Your task to perform on an android device: turn off priority inbox in the gmail app Image 0: 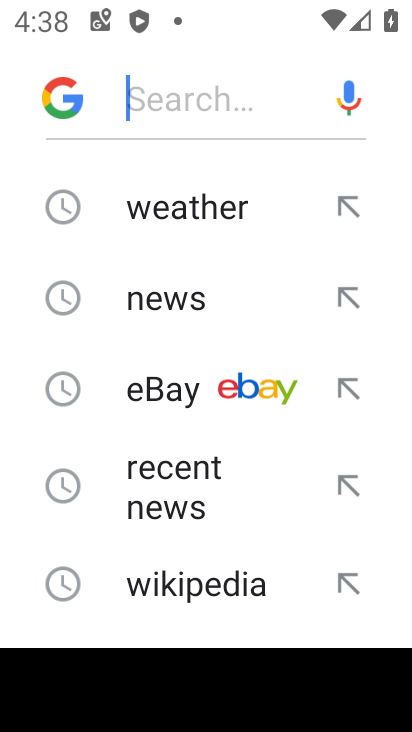
Step 0: press back button
Your task to perform on an android device: turn off priority inbox in the gmail app Image 1: 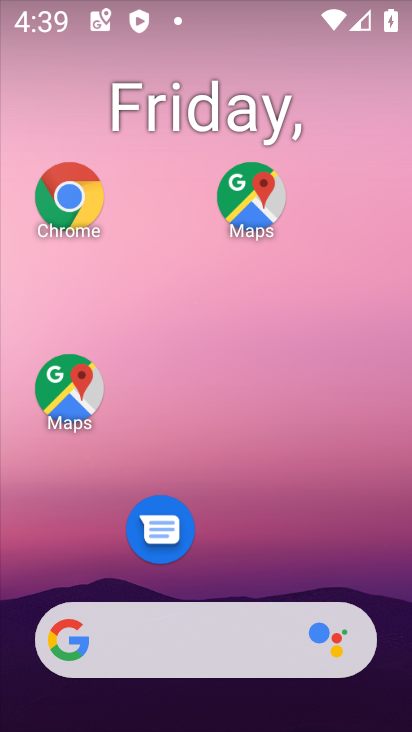
Step 1: drag from (277, 570) to (267, 76)
Your task to perform on an android device: turn off priority inbox in the gmail app Image 2: 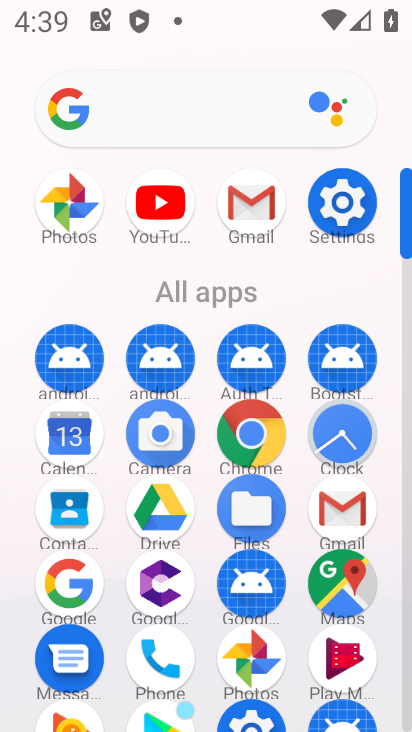
Step 2: click (256, 212)
Your task to perform on an android device: turn off priority inbox in the gmail app Image 3: 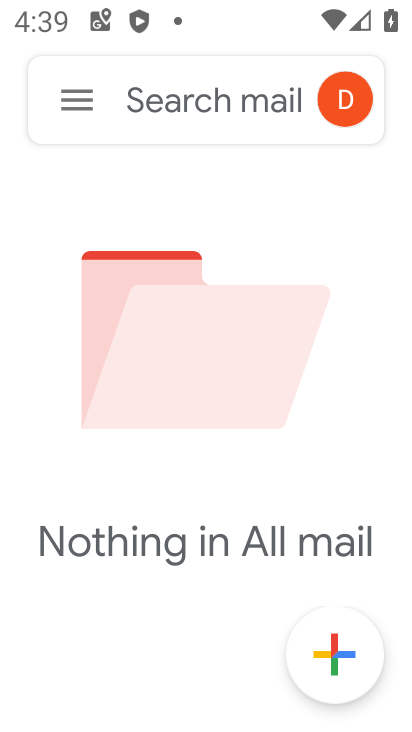
Step 3: click (82, 101)
Your task to perform on an android device: turn off priority inbox in the gmail app Image 4: 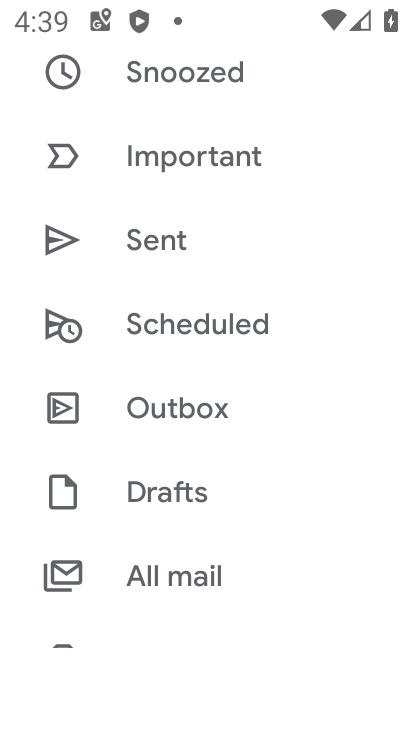
Step 4: drag from (237, 566) to (263, 141)
Your task to perform on an android device: turn off priority inbox in the gmail app Image 5: 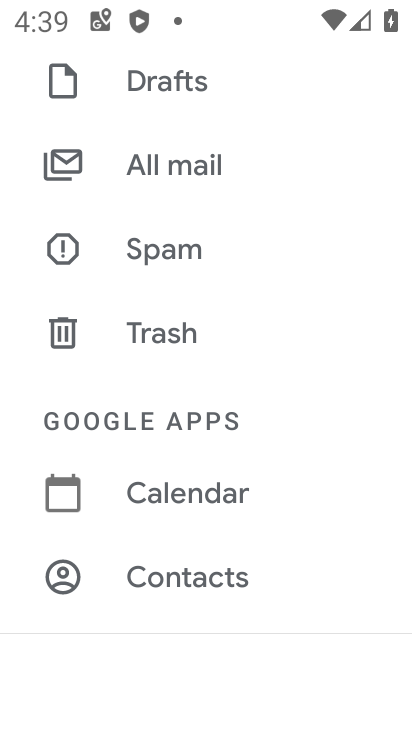
Step 5: drag from (169, 628) to (209, 225)
Your task to perform on an android device: turn off priority inbox in the gmail app Image 6: 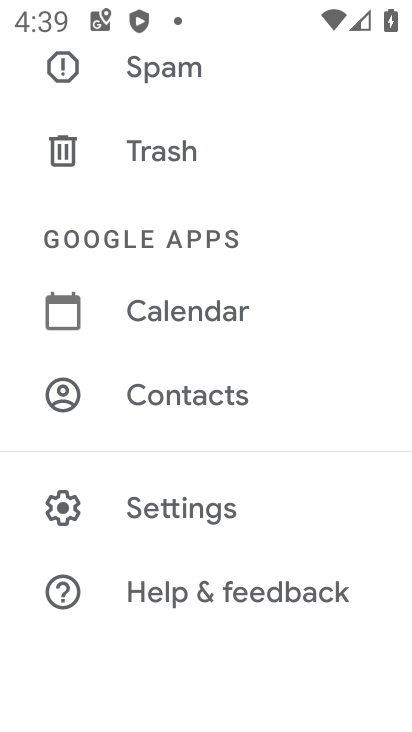
Step 6: click (167, 516)
Your task to perform on an android device: turn off priority inbox in the gmail app Image 7: 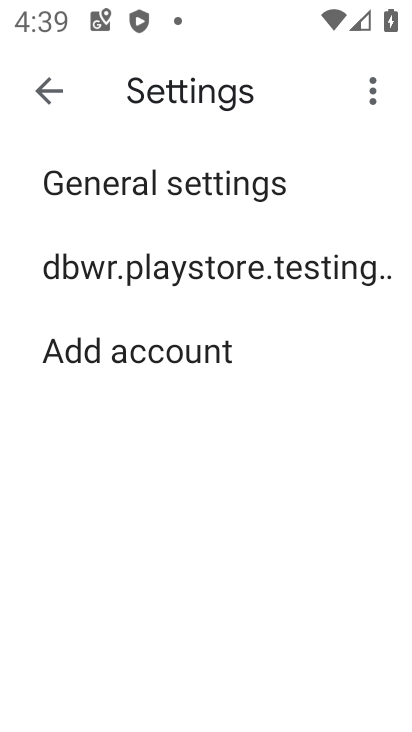
Step 7: click (172, 284)
Your task to perform on an android device: turn off priority inbox in the gmail app Image 8: 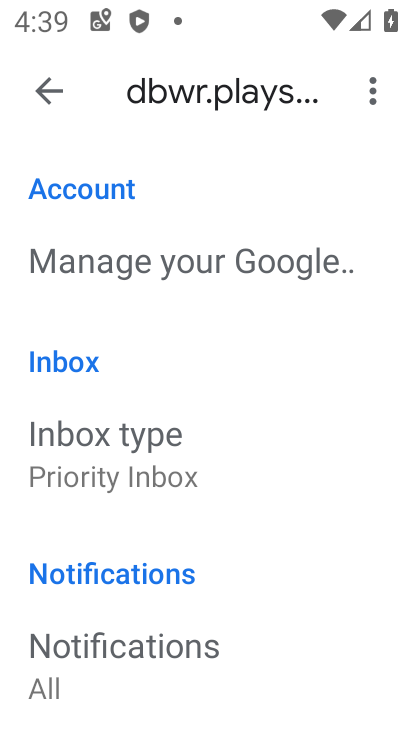
Step 8: click (122, 471)
Your task to perform on an android device: turn off priority inbox in the gmail app Image 9: 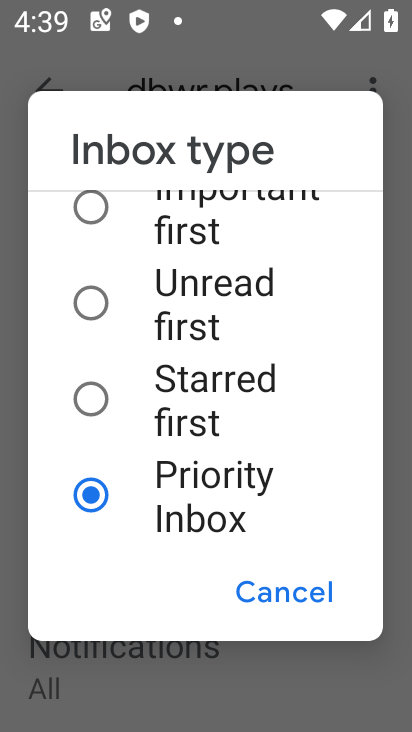
Step 9: click (85, 218)
Your task to perform on an android device: turn off priority inbox in the gmail app Image 10: 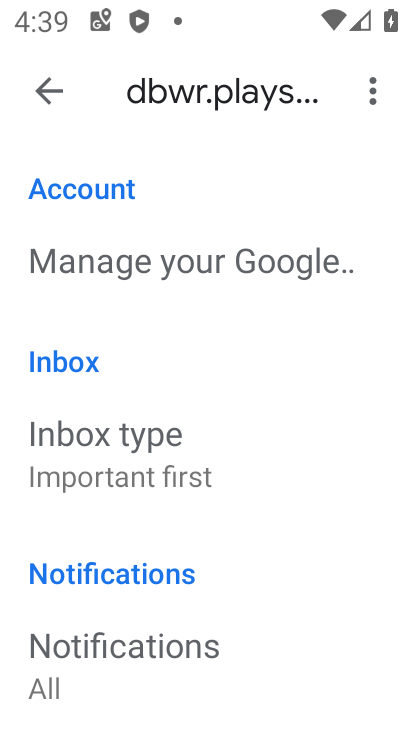
Step 10: task complete